Your task to perform on an android device: show emergency info Image 0: 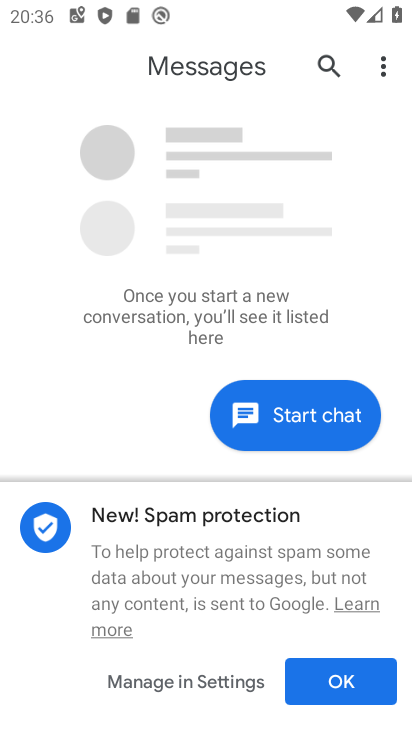
Step 0: press home button
Your task to perform on an android device: show emergency info Image 1: 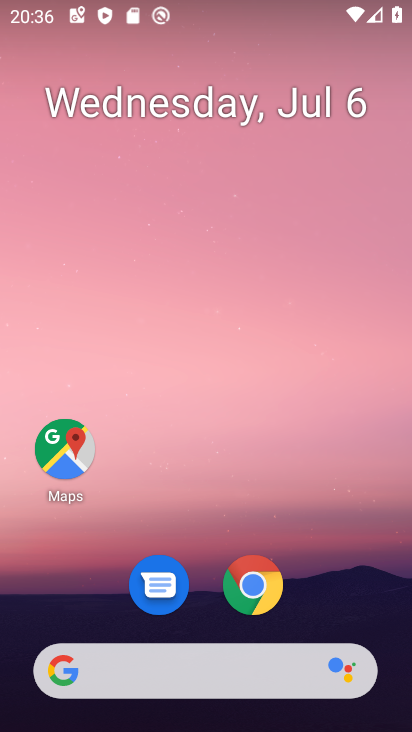
Step 1: drag from (225, 505) to (245, 5)
Your task to perform on an android device: show emergency info Image 2: 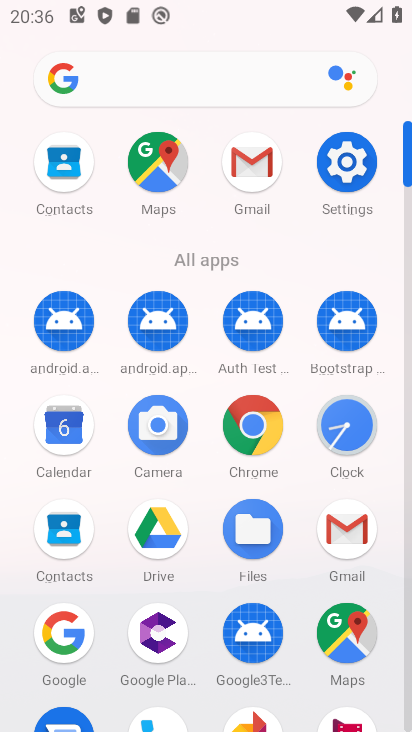
Step 2: click (351, 163)
Your task to perform on an android device: show emergency info Image 3: 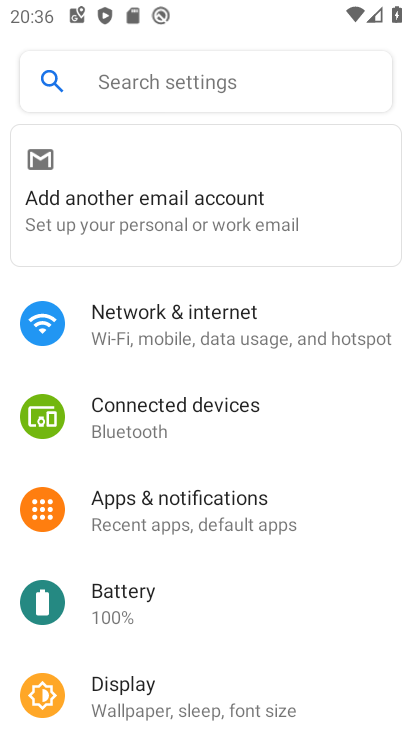
Step 3: drag from (215, 628) to (214, 60)
Your task to perform on an android device: show emergency info Image 4: 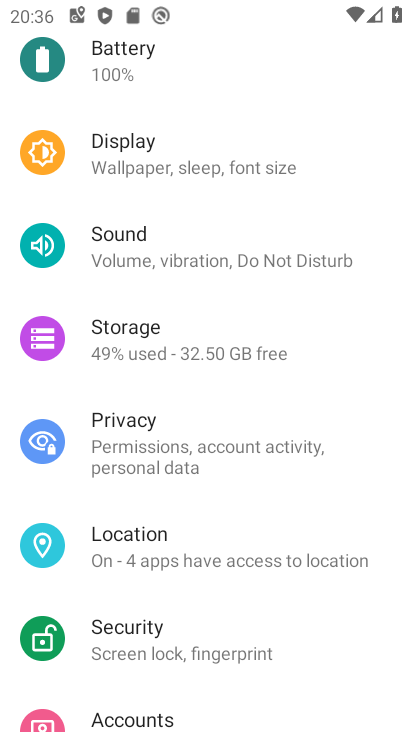
Step 4: drag from (225, 600) to (242, 134)
Your task to perform on an android device: show emergency info Image 5: 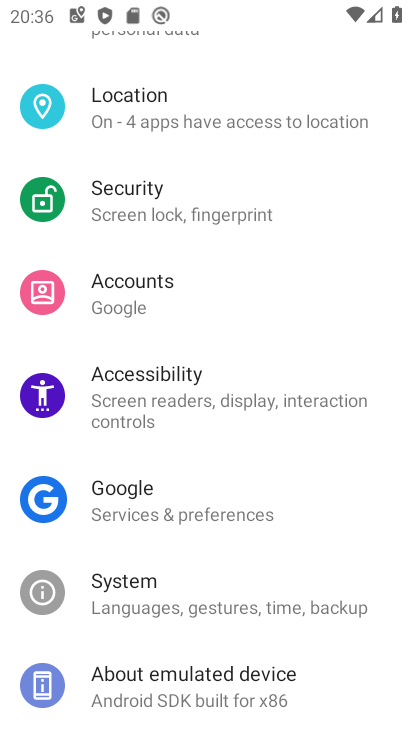
Step 5: click (195, 682)
Your task to perform on an android device: show emergency info Image 6: 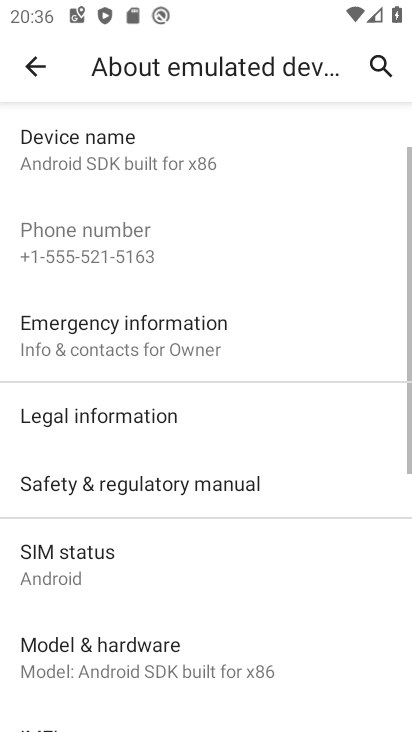
Step 6: click (188, 332)
Your task to perform on an android device: show emergency info Image 7: 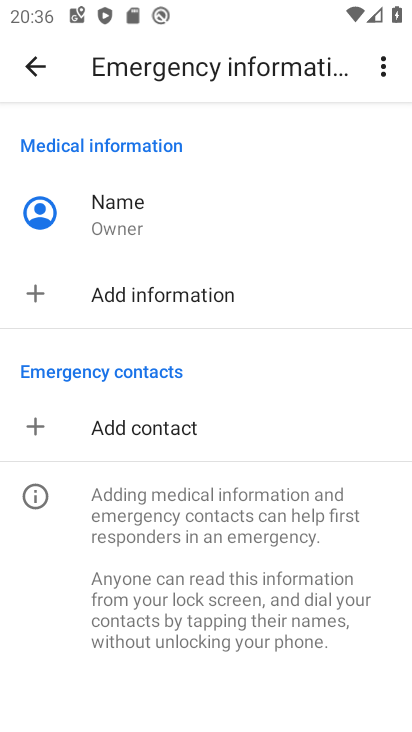
Step 7: task complete